Your task to perform on an android device: stop showing notifications on the lock screen Image 0: 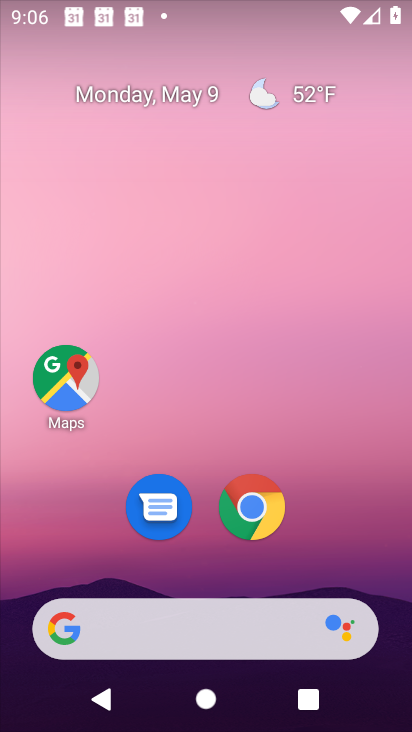
Step 0: drag from (314, 562) to (346, 50)
Your task to perform on an android device: stop showing notifications on the lock screen Image 1: 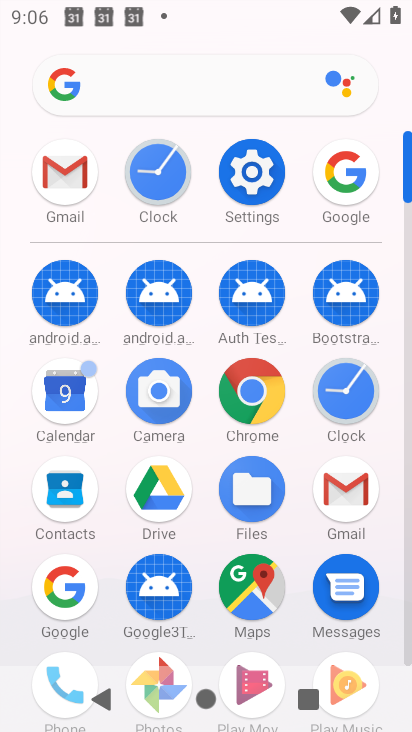
Step 1: click (255, 171)
Your task to perform on an android device: stop showing notifications on the lock screen Image 2: 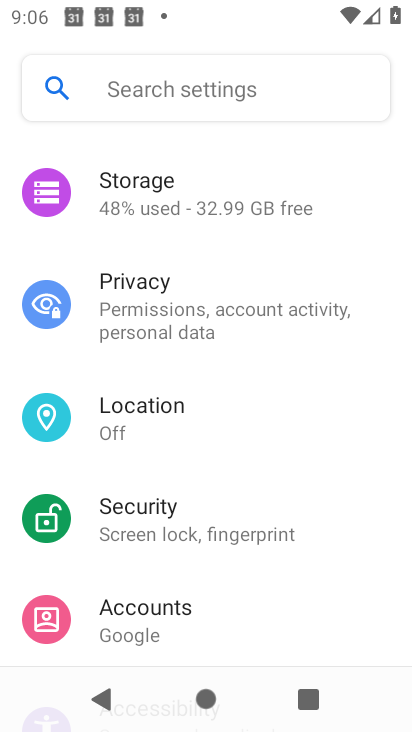
Step 2: drag from (257, 446) to (255, 523)
Your task to perform on an android device: stop showing notifications on the lock screen Image 3: 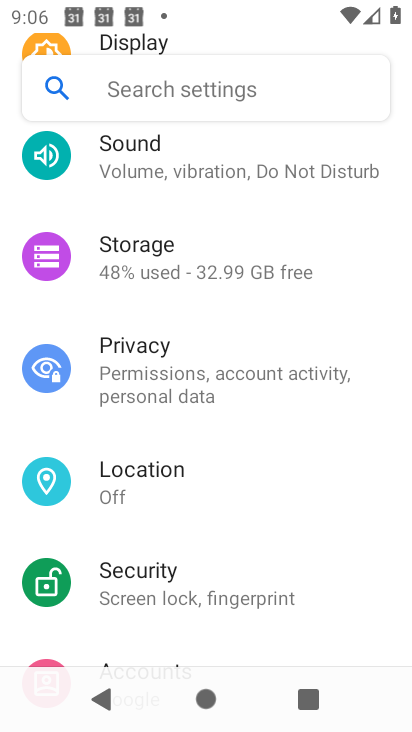
Step 3: drag from (245, 322) to (272, 442)
Your task to perform on an android device: stop showing notifications on the lock screen Image 4: 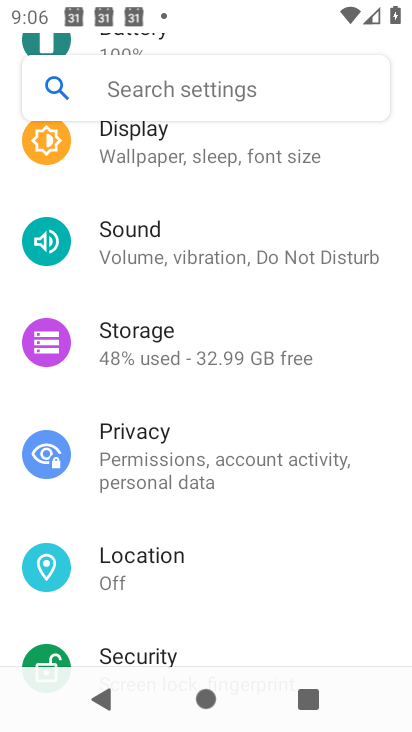
Step 4: drag from (253, 268) to (277, 365)
Your task to perform on an android device: stop showing notifications on the lock screen Image 5: 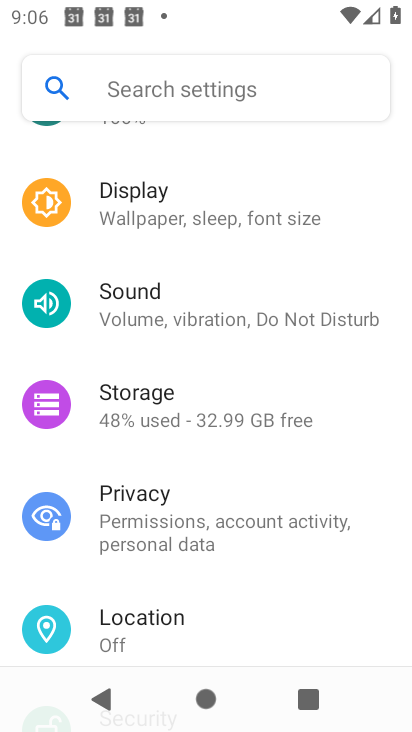
Step 5: drag from (283, 269) to (286, 394)
Your task to perform on an android device: stop showing notifications on the lock screen Image 6: 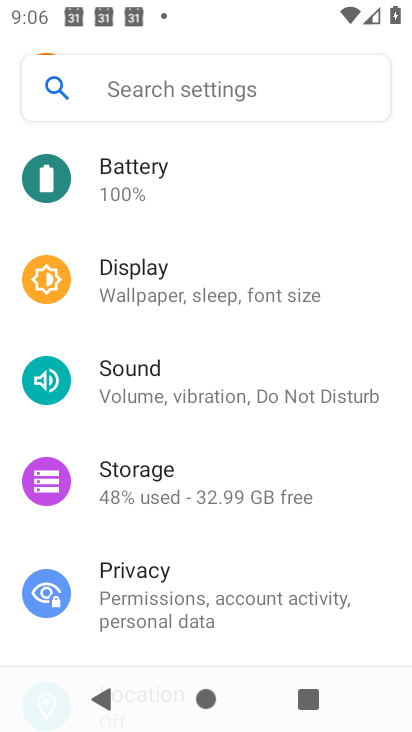
Step 6: drag from (259, 239) to (244, 398)
Your task to perform on an android device: stop showing notifications on the lock screen Image 7: 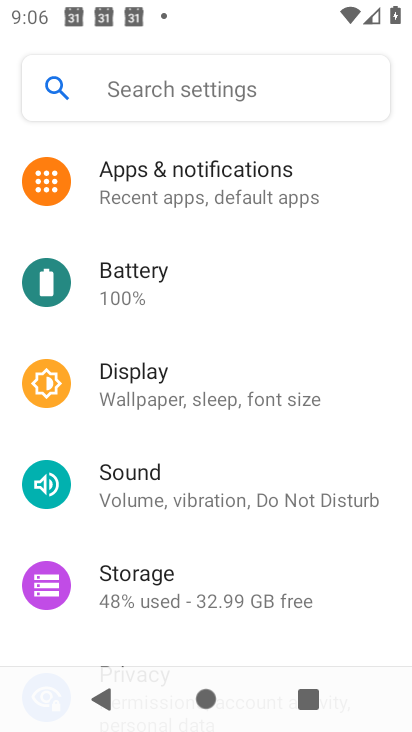
Step 7: click (218, 167)
Your task to perform on an android device: stop showing notifications on the lock screen Image 8: 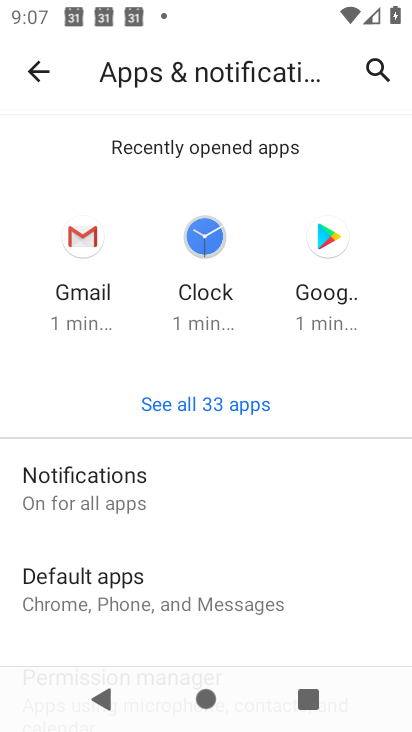
Step 8: drag from (214, 476) to (215, 347)
Your task to perform on an android device: stop showing notifications on the lock screen Image 9: 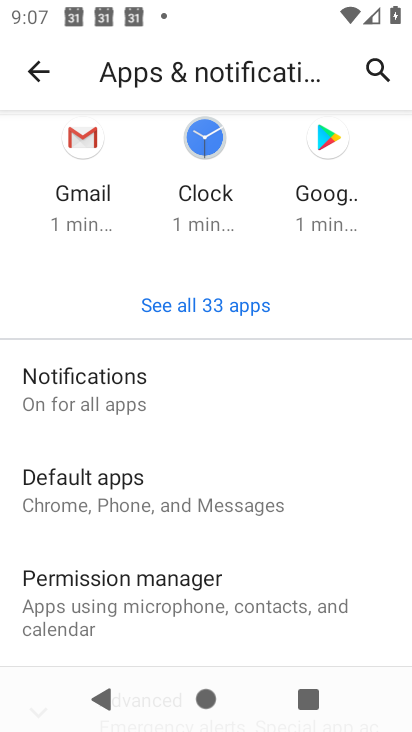
Step 9: drag from (180, 445) to (220, 336)
Your task to perform on an android device: stop showing notifications on the lock screen Image 10: 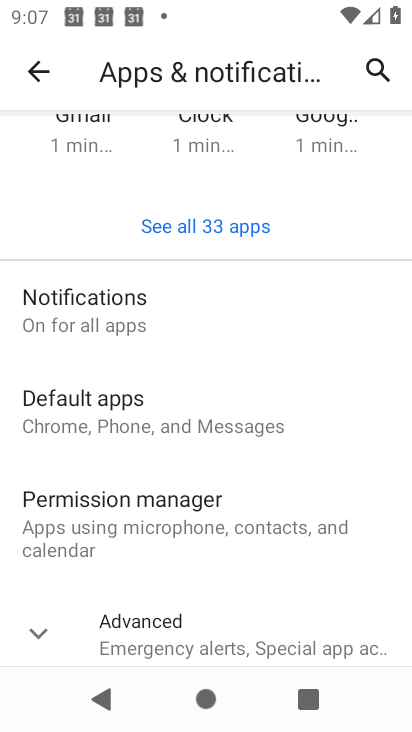
Step 10: click (126, 300)
Your task to perform on an android device: stop showing notifications on the lock screen Image 11: 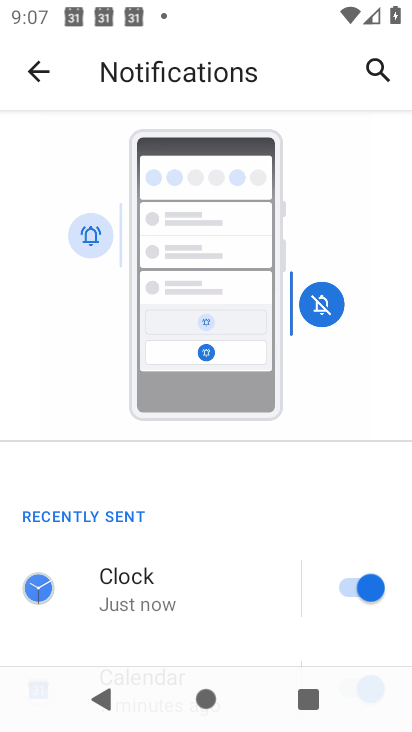
Step 11: drag from (199, 548) to (234, 312)
Your task to perform on an android device: stop showing notifications on the lock screen Image 12: 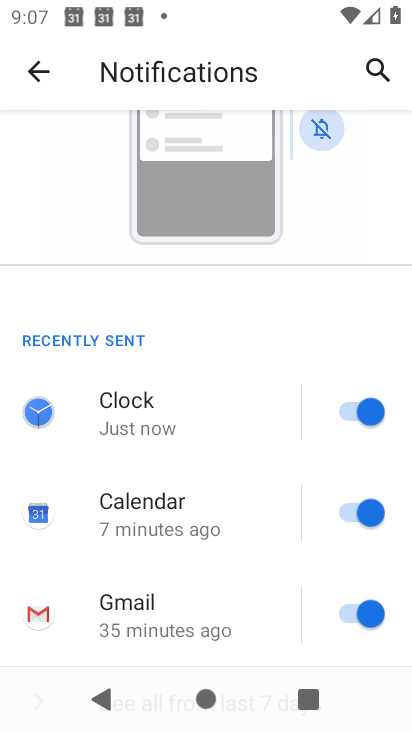
Step 12: drag from (189, 584) to (241, 400)
Your task to perform on an android device: stop showing notifications on the lock screen Image 13: 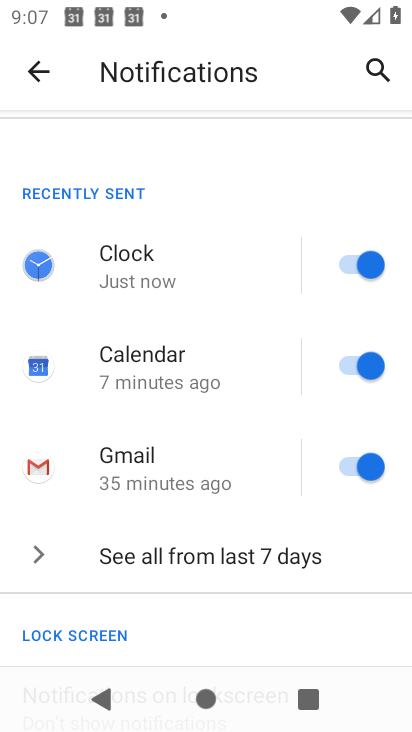
Step 13: drag from (185, 523) to (241, 392)
Your task to perform on an android device: stop showing notifications on the lock screen Image 14: 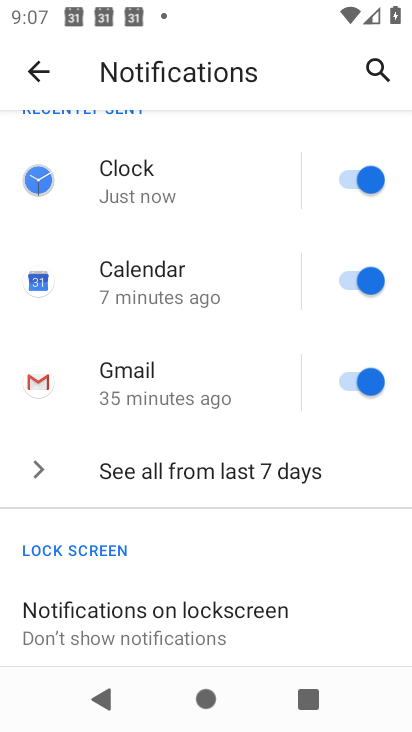
Step 14: click (182, 612)
Your task to perform on an android device: stop showing notifications on the lock screen Image 15: 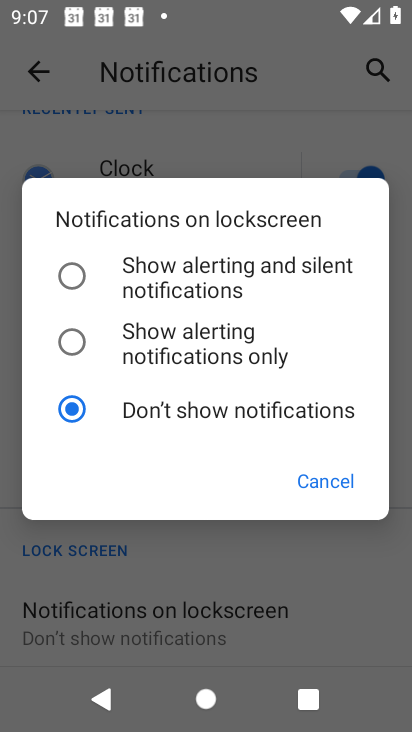
Step 15: click (70, 409)
Your task to perform on an android device: stop showing notifications on the lock screen Image 16: 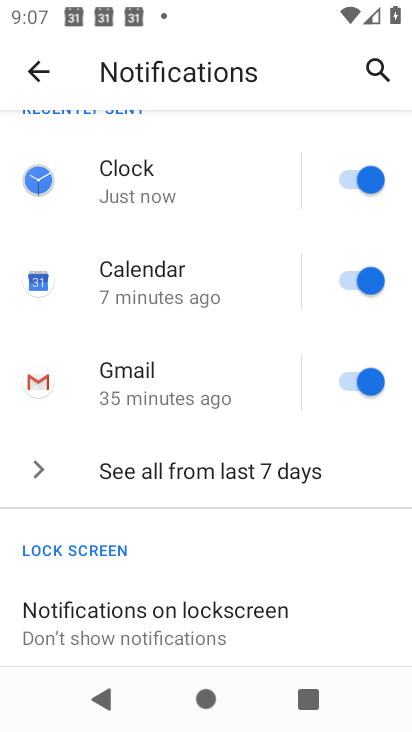
Step 16: task complete